Your task to perform on an android device: turn off location history Image 0: 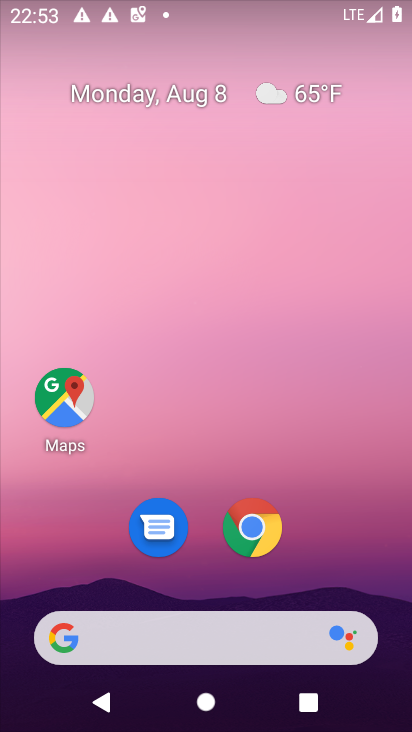
Step 0: drag from (381, 711) to (313, 36)
Your task to perform on an android device: turn off location history Image 1: 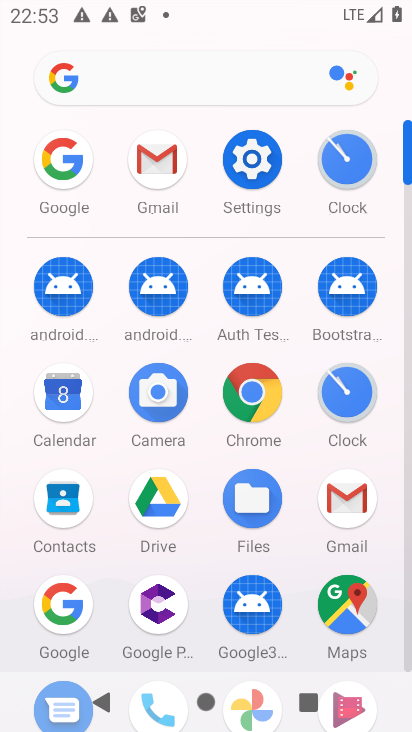
Step 1: click (248, 173)
Your task to perform on an android device: turn off location history Image 2: 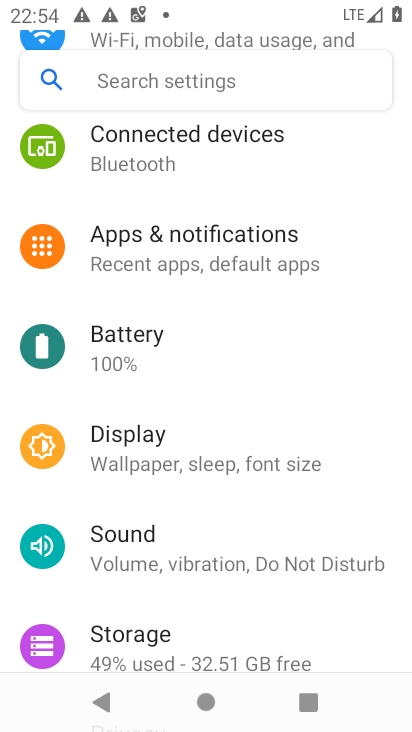
Step 2: drag from (338, 619) to (329, 312)
Your task to perform on an android device: turn off location history Image 3: 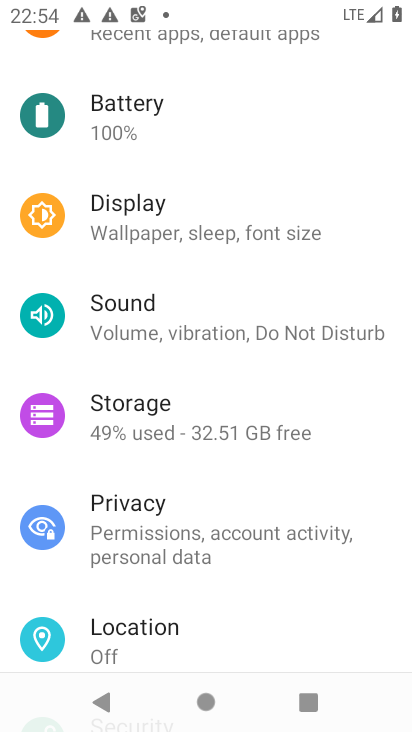
Step 3: click (160, 623)
Your task to perform on an android device: turn off location history Image 4: 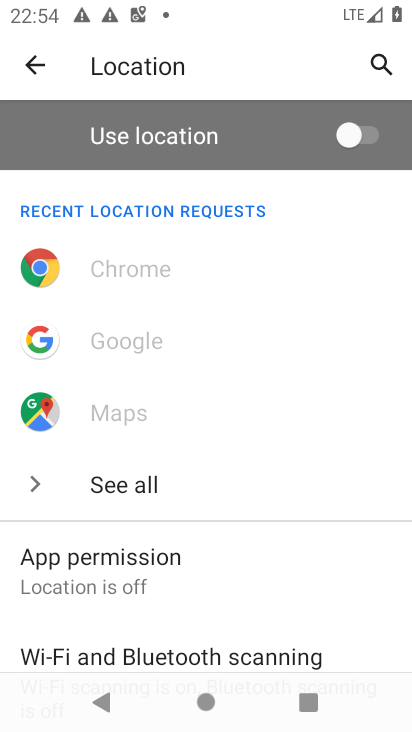
Step 4: drag from (316, 619) to (329, 336)
Your task to perform on an android device: turn off location history Image 5: 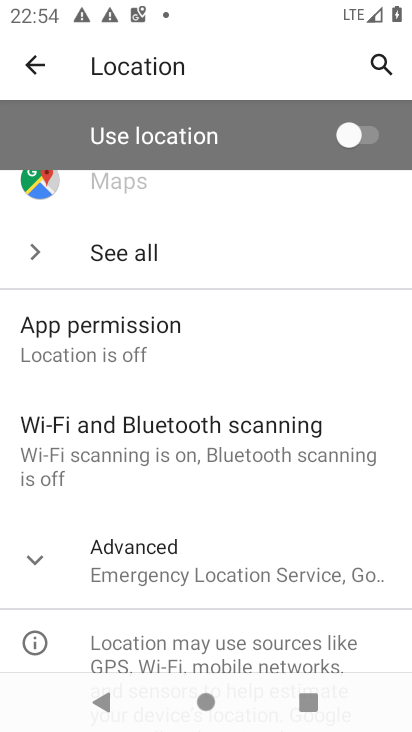
Step 5: drag from (320, 657) to (332, 385)
Your task to perform on an android device: turn off location history Image 6: 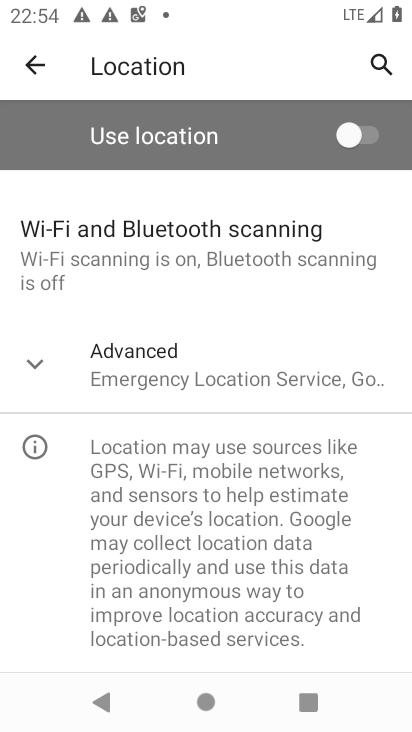
Step 6: click (43, 361)
Your task to perform on an android device: turn off location history Image 7: 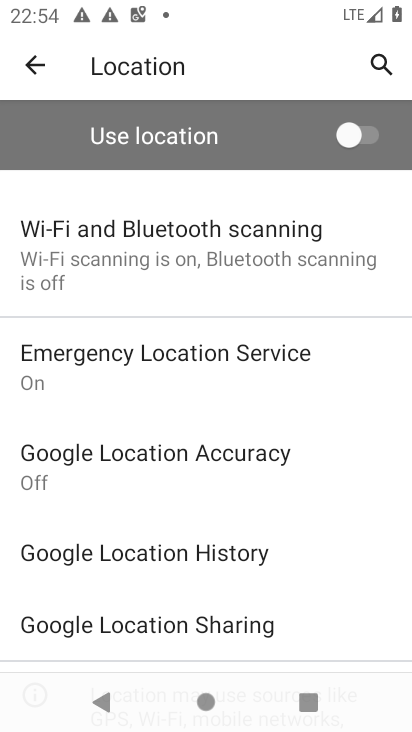
Step 7: click (148, 550)
Your task to perform on an android device: turn off location history Image 8: 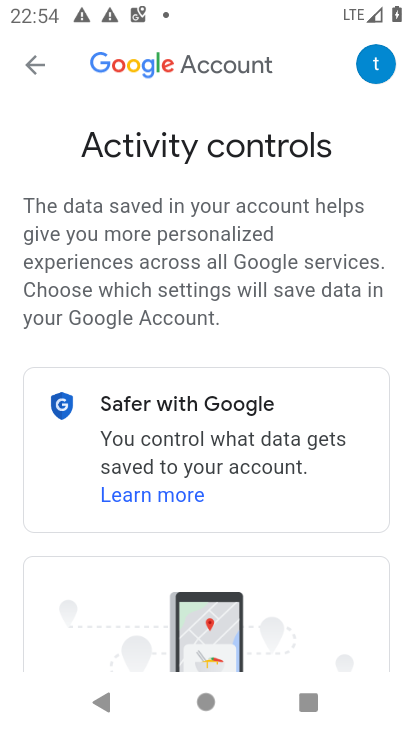
Step 8: drag from (318, 603) to (304, 285)
Your task to perform on an android device: turn off location history Image 9: 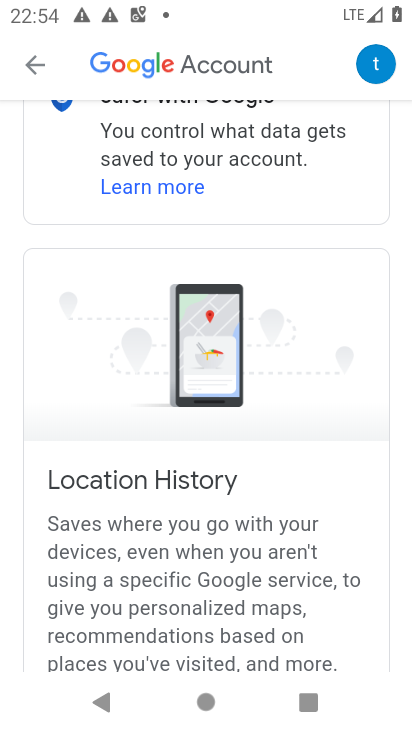
Step 9: drag from (345, 638) to (338, 287)
Your task to perform on an android device: turn off location history Image 10: 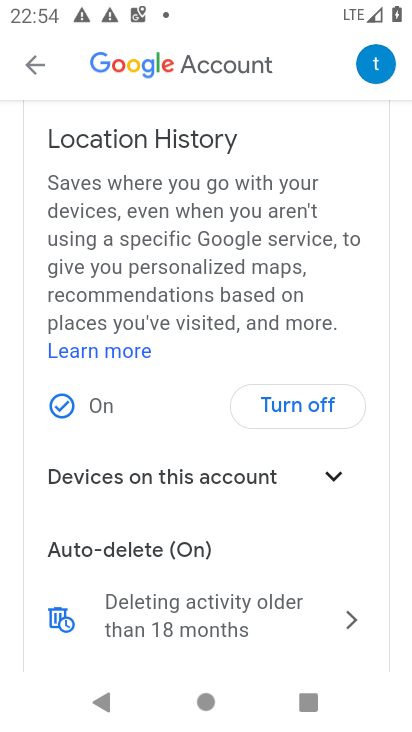
Step 10: click (299, 414)
Your task to perform on an android device: turn off location history Image 11: 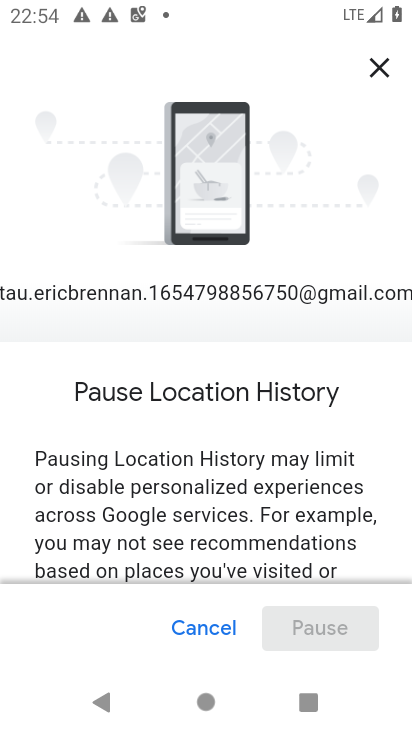
Step 11: drag from (271, 539) to (259, 163)
Your task to perform on an android device: turn off location history Image 12: 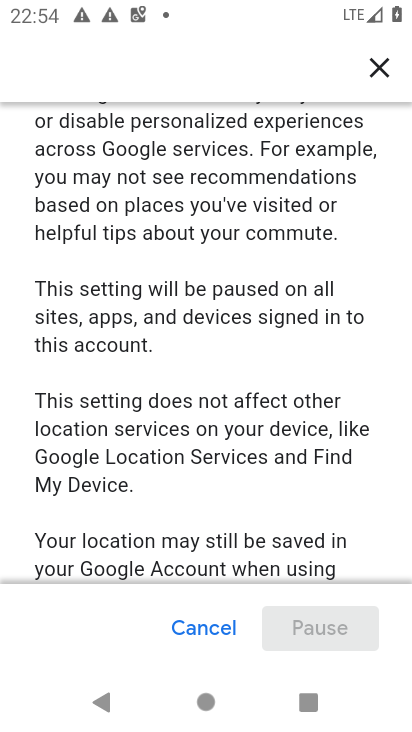
Step 12: drag from (248, 547) to (233, 191)
Your task to perform on an android device: turn off location history Image 13: 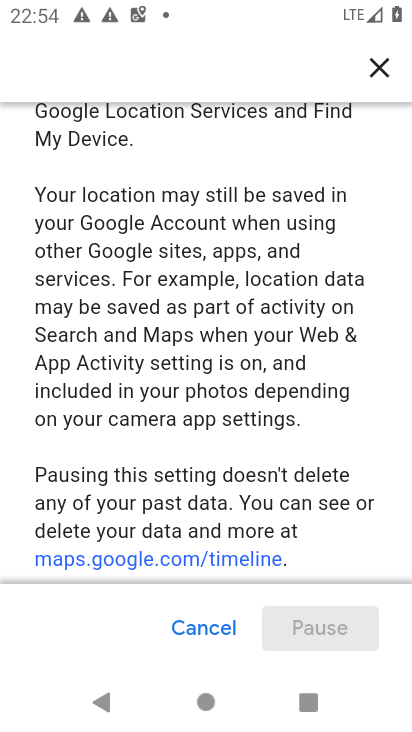
Step 13: drag from (248, 535) to (248, 219)
Your task to perform on an android device: turn off location history Image 14: 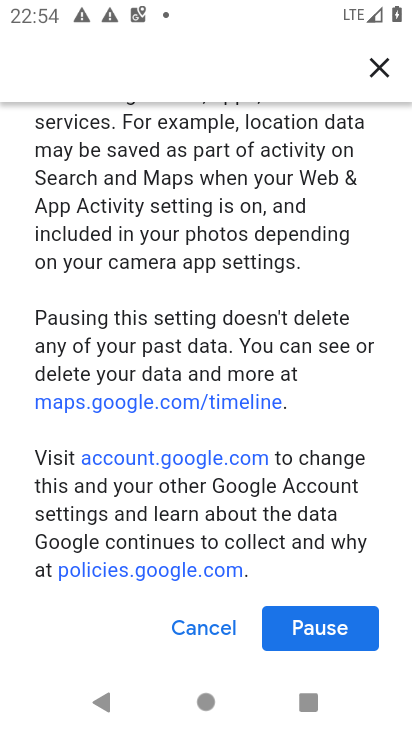
Step 14: click (308, 614)
Your task to perform on an android device: turn off location history Image 15: 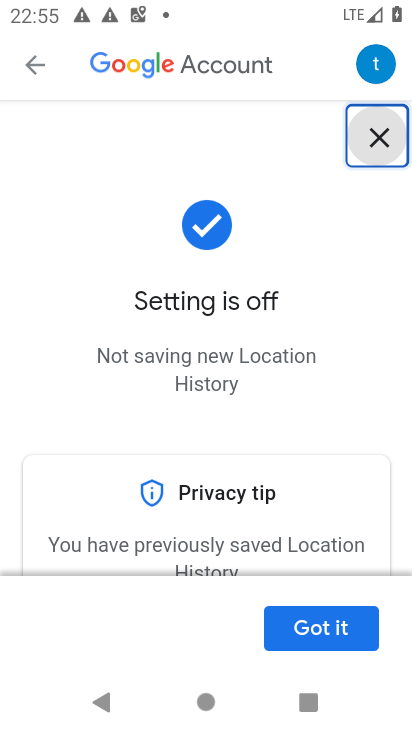
Step 15: click (311, 631)
Your task to perform on an android device: turn off location history Image 16: 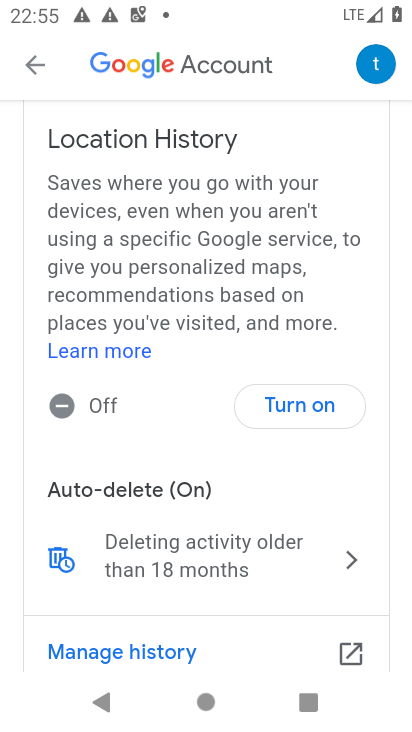
Step 16: task complete